Your task to perform on an android device: change text size in settings app Image 0: 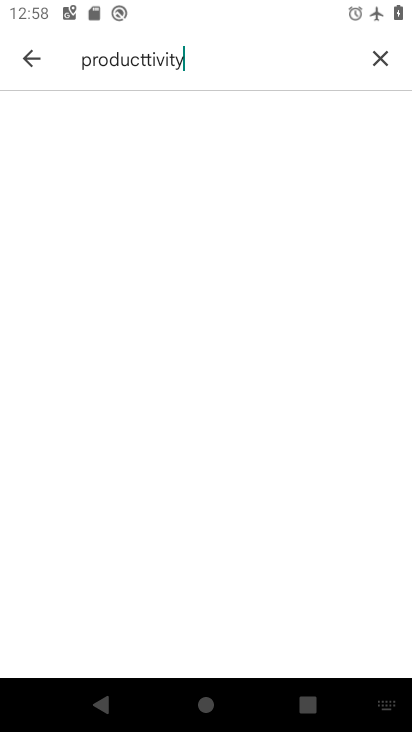
Step 0: press home button
Your task to perform on an android device: change text size in settings app Image 1: 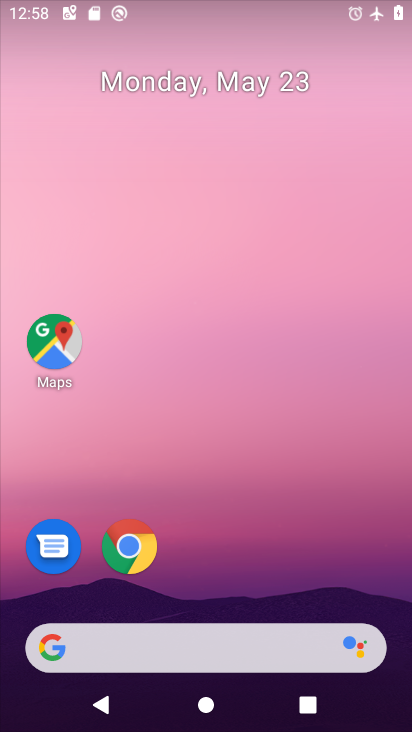
Step 1: drag from (234, 692) to (244, 163)
Your task to perform on an android device: change text size in settings app Image 2: 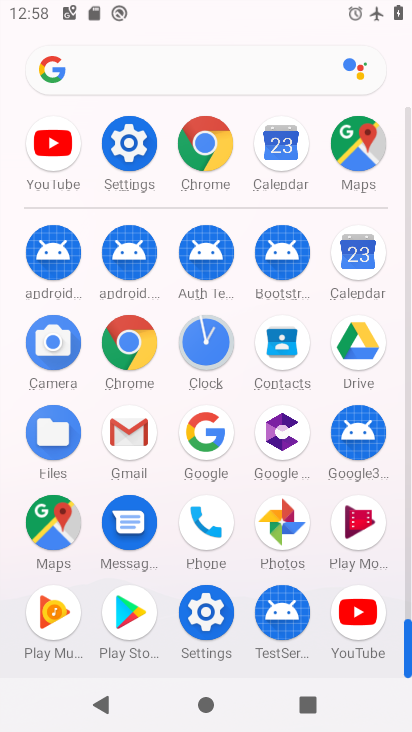
Step 2: click (128, 148)
Your task to perform on an android device: change text size in settings app Image 3: 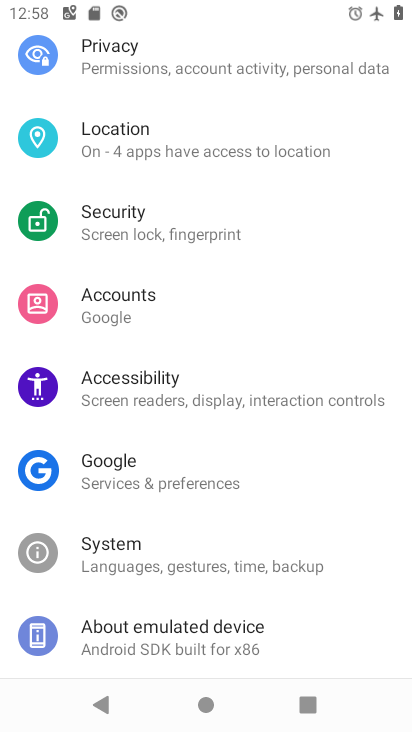
Step 3: drag from (235, 276) to (210, 718)
Your task to perform on an android device: change text size in settings app Image 4: 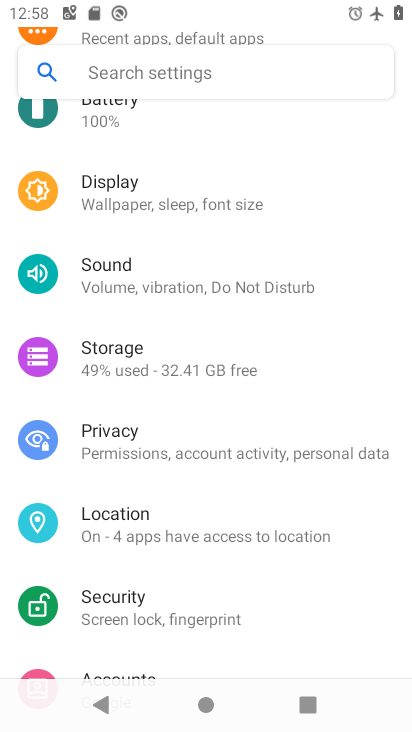
Step 4: click (167, 214)
Your task to perform on an android device: change text size in settings app Image 5: 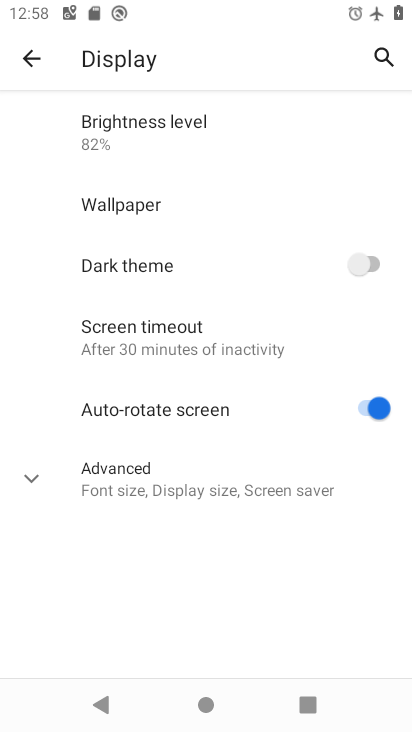
Step 5: click (190, 485)
Your task to perform on an android device: change text size in settings app Image 6: 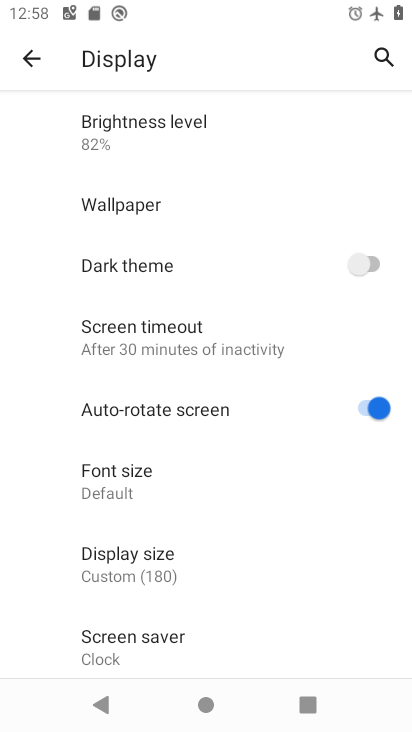
Step 6: click (162, 490)
Your task to perform on an android device: change text size in settings app Image 7: 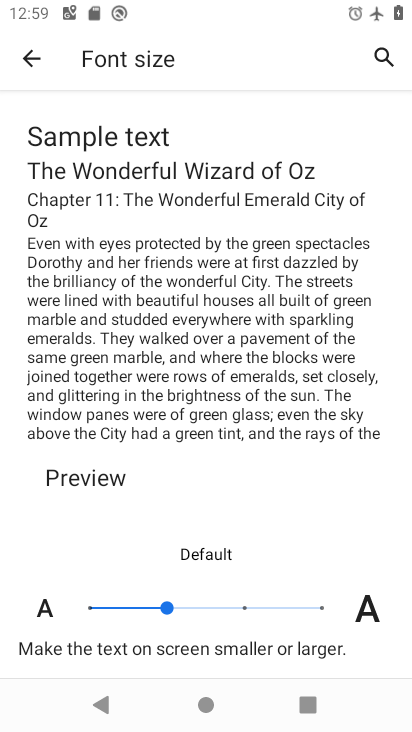
Step 7: click (249, 607)
Your task to perform on an android device: change text size in settings app Image 8: 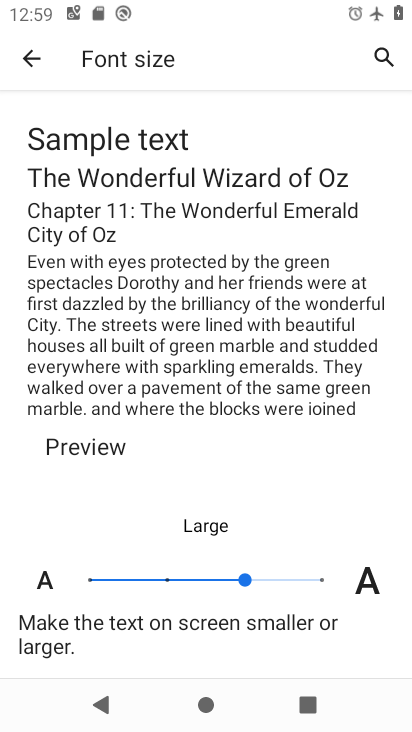
Step 8: task complete